Your task to perform on an android device: snooze an email in the gmail app Image 0: 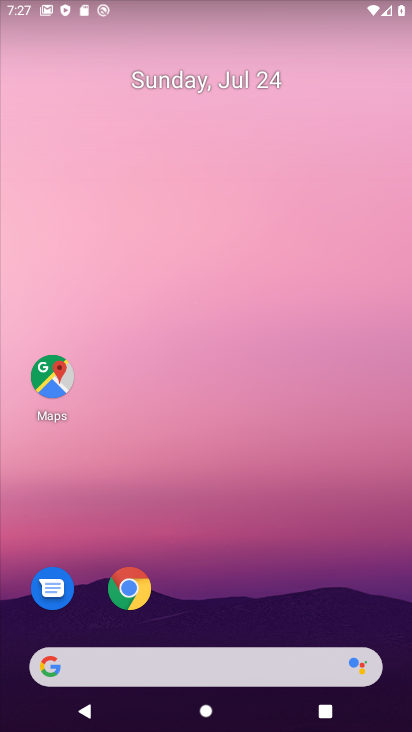
Step 0: drag from (273, 692) to (308, 138)
Your task to perform on an android device: snooze an email in the gmail app Image 1: 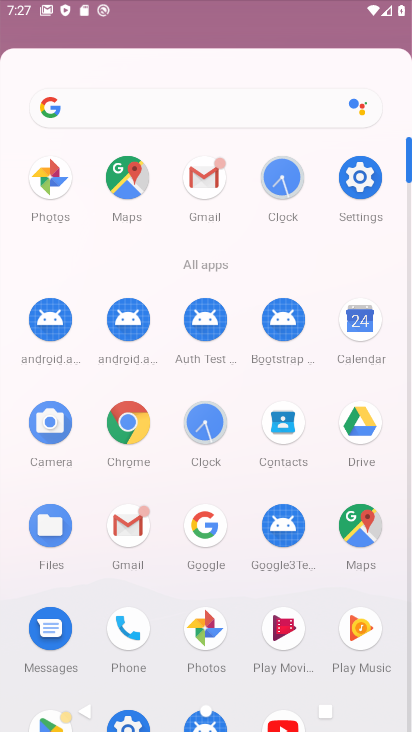
Step 1: drag from (347, 10) to (408, 157)
Your task to perform on an android device: snooze an email in the gmail app Image 2: 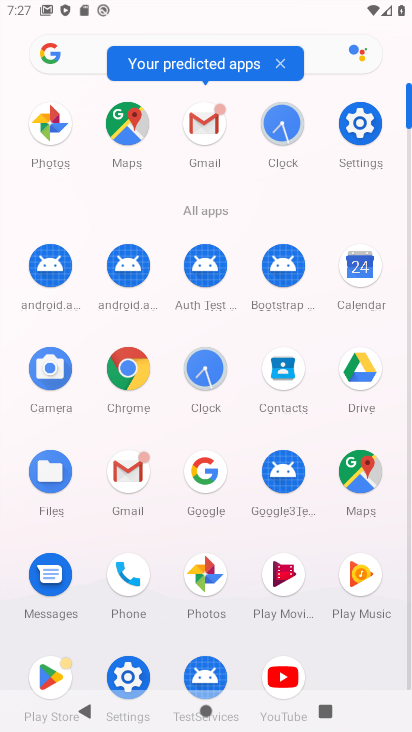
Step 2: click (201, 124)
Your task to perform on an android device: snooze an email in the gmail app Image 3: 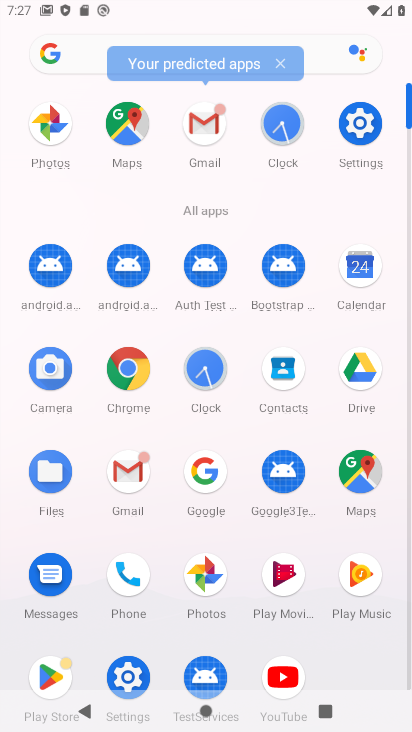
Step 3: click (201, 124)
Your task to perform on an android device: snooze an email in the gmail app Image 4: 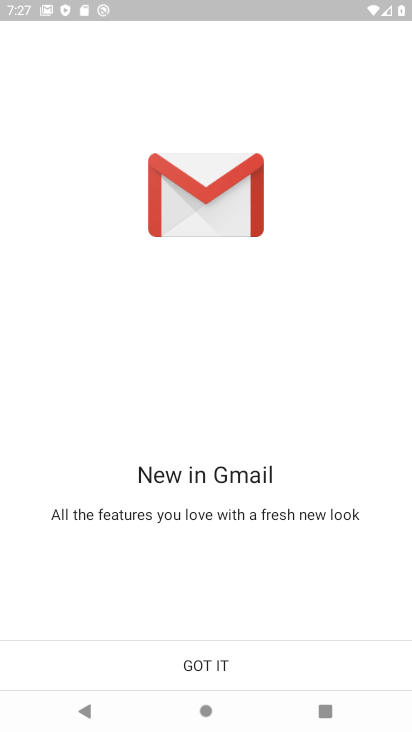
Step 4: click (237, 667)
Your task to perform on an android device: snooze an email in the gmail app Image 5: 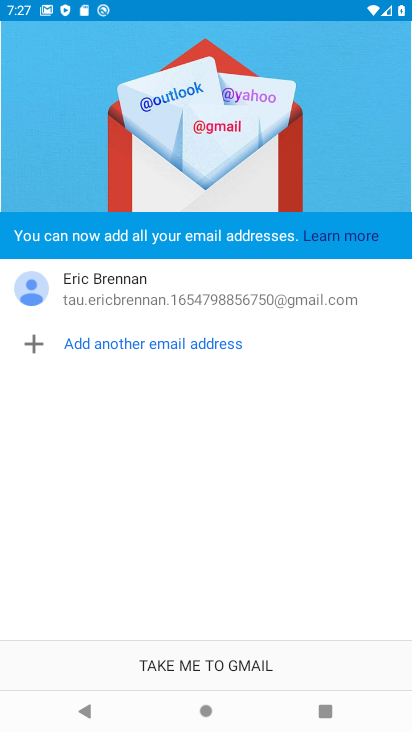
Step 5: click (258, 670)
Your task to perform on an android device: snooze an email in the gmail app Image 6: 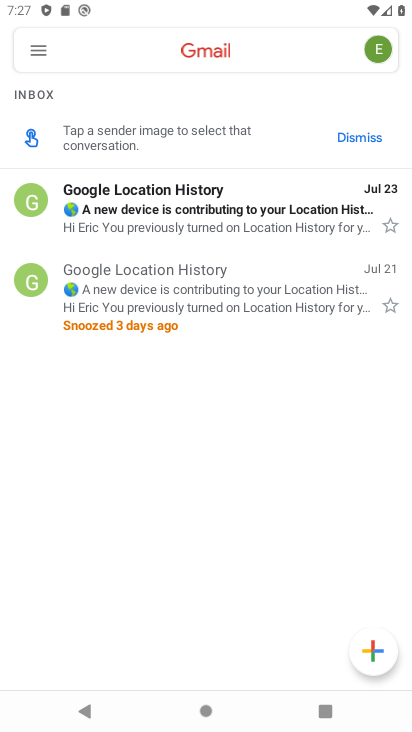
Step 6: click (315, 219)
Your task to perform on an android device: snooze an email in the gmail app Image 7: 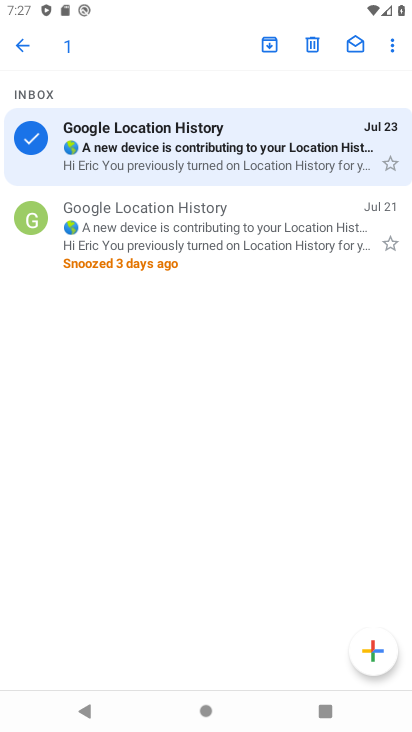
Step 7: click (386, 40)
Your task to perform on an android device: snooze an email in the gmail app Image 8: 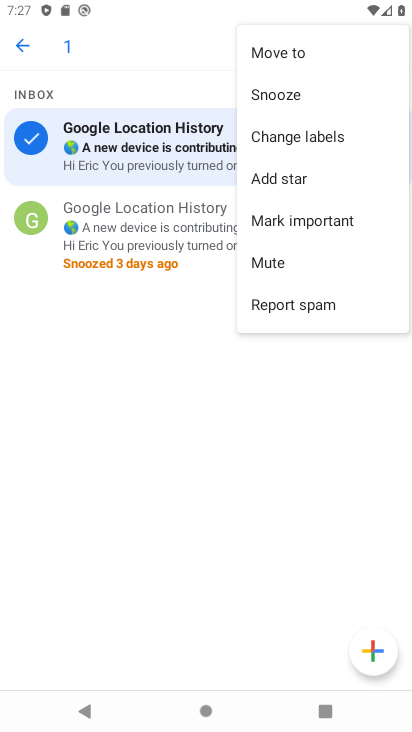
Step 8: click (300, 82)
Your task to perform on an android device: snooze an email in the gmail app Image 9: 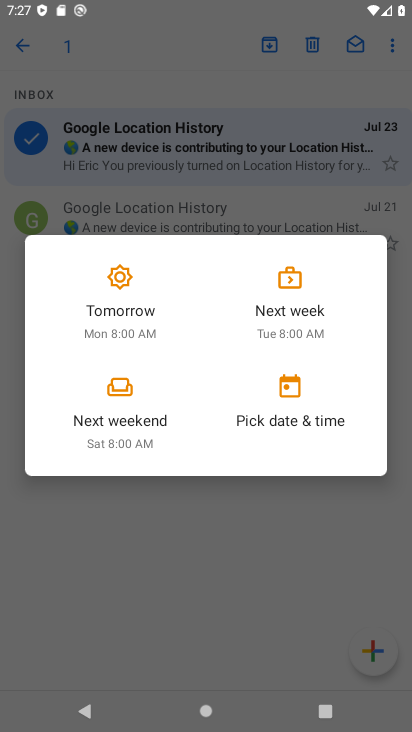
Step 9: click (145, 303)
Your task to perform on an android device: snooze an email in the gmail app Image 10: 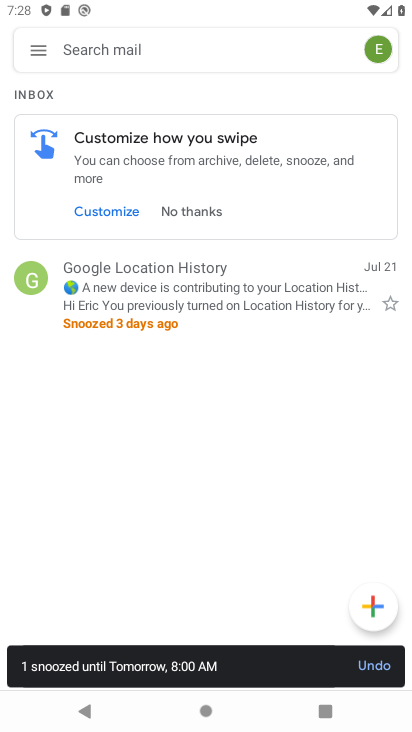
Step 10: task complete